Your task to perform on an android device: toggle javascript in the chrome app Image 0: 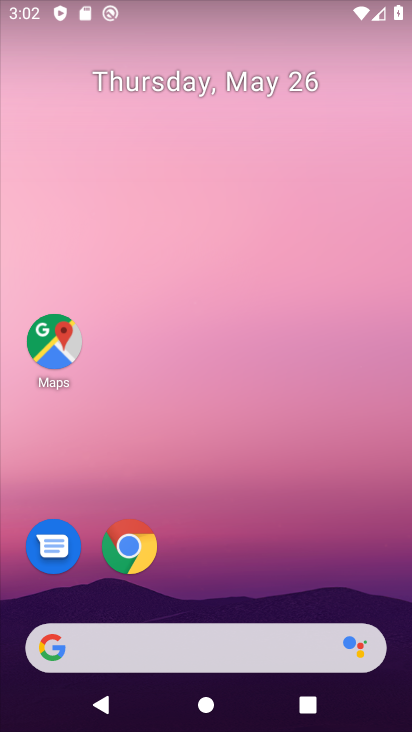
Step 0: drag from (278, 466) to (223, 40)
Your task to perform on an android device: toggle javascript in the chrome app Image 1: 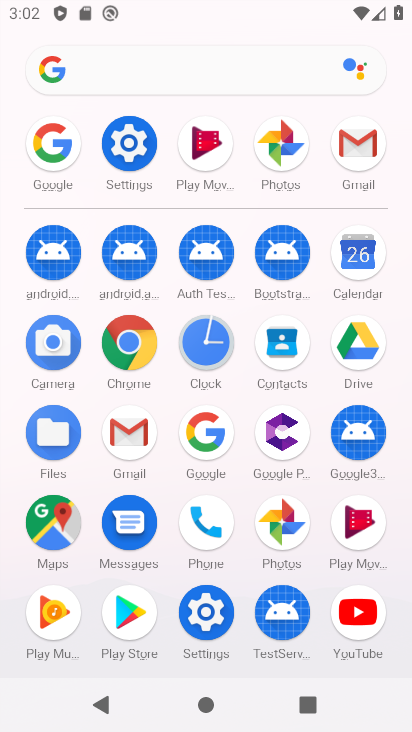
Step 1: click (129, 341)
Your task to perform on an android device: toggle javascript in the chrome app Image 2: 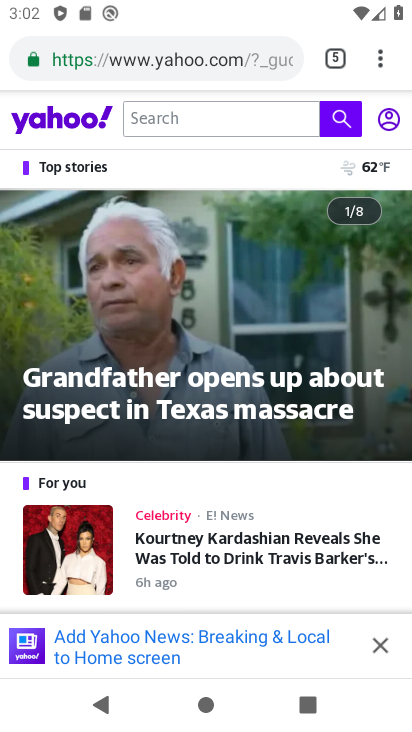
Step 2: click (381, 59)
Your task to perform on an android device: toggle javascript in the chrome app Image 3: 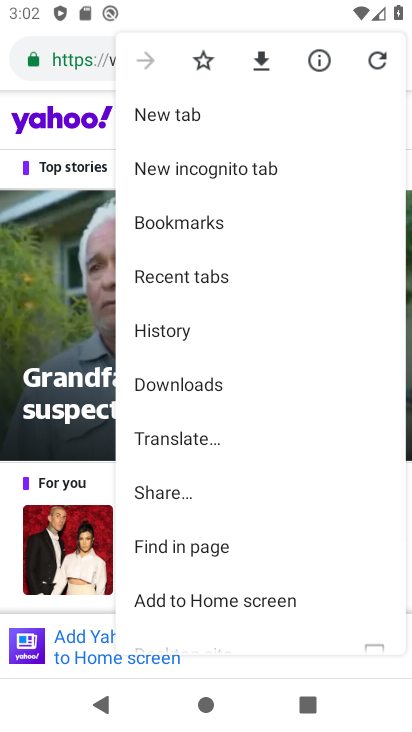
Step 3: drag from (252, 491) to (256, 105)
Your task to perform on an android device: toggle javascript in the chrome app Image 4: 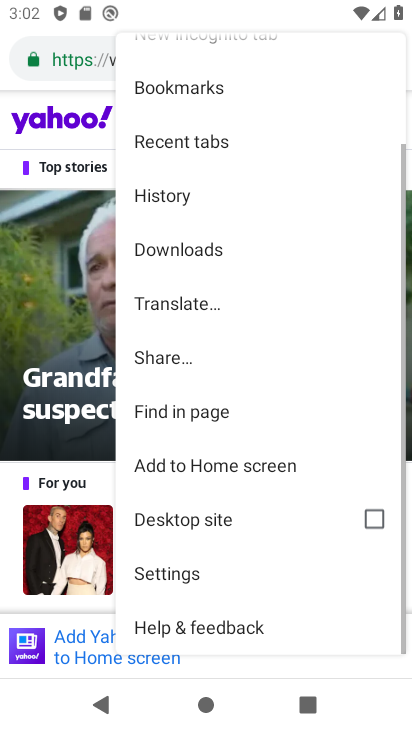
Step 4: click (229, 582)
Your task to perform on an android device: toggle javascript in the chrome app Image 5: 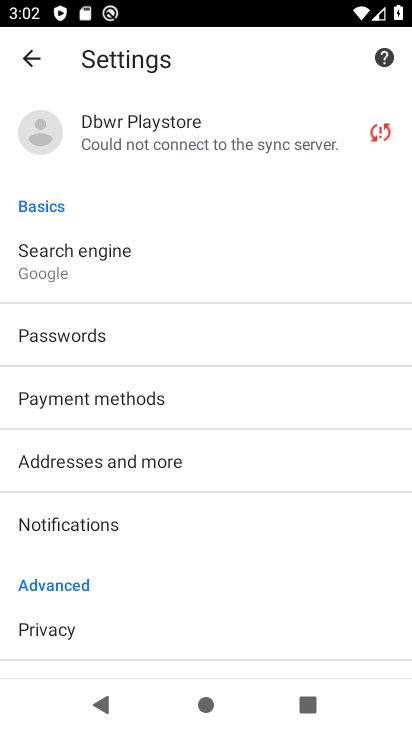
Step 5: drag from (210, 569) to (211, 162)
Your task to perform on an android device: toggle javascript in the chrome app Image 6: 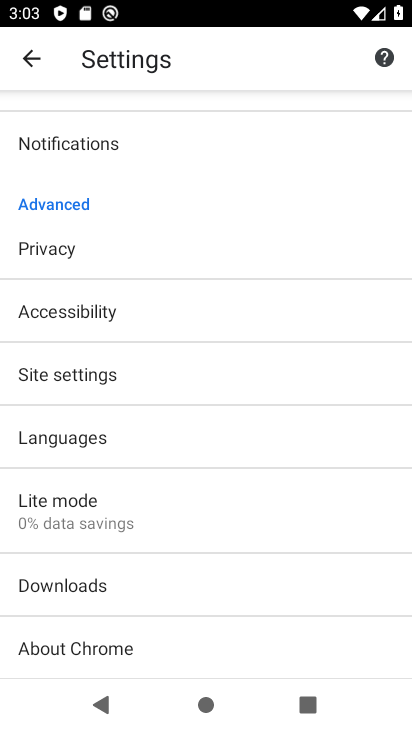
Step 6: click (118, 514)
Your task to perform on an android device: toggle javascript in the chrome app Image 7: 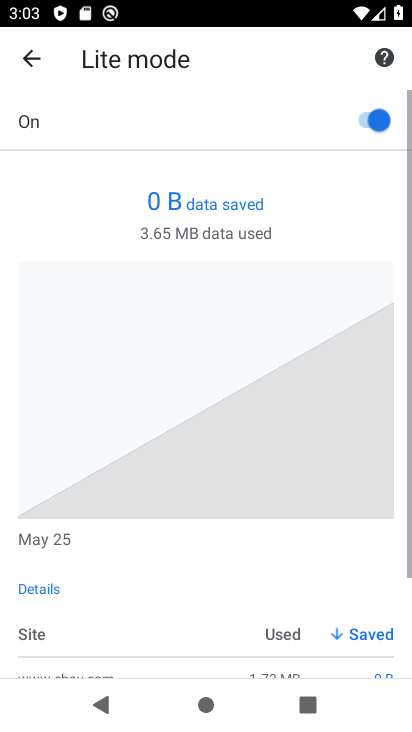
Step 7: press back button
Your task to perform on an android device: toggle javascript in the chrome app Image 8: 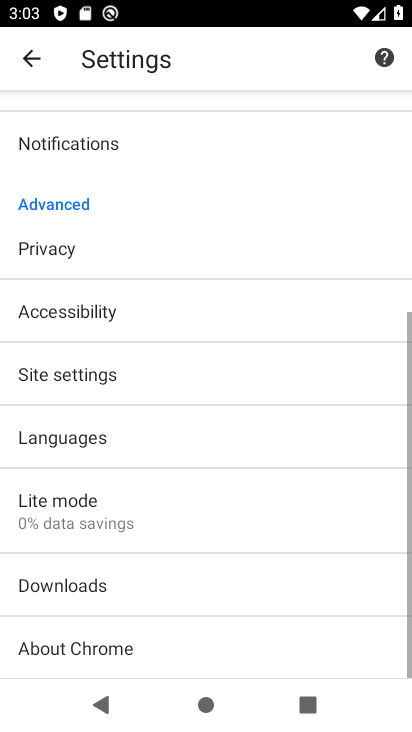
Step 8: click (122, 387)
Your task to perform on an android device: toggle javascript in the chrome app Image 9: 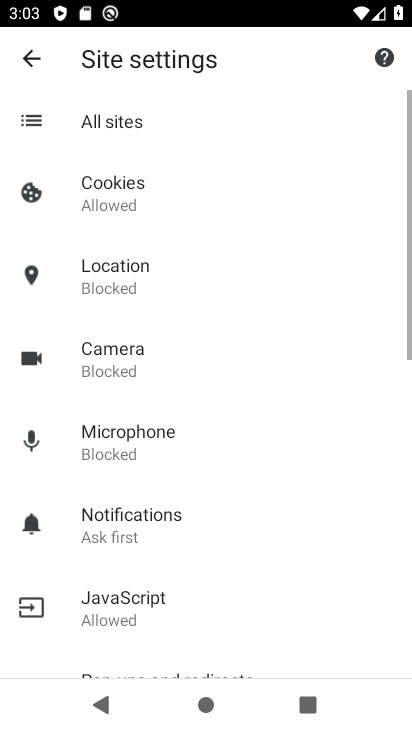
Step 9: click (141, 607)
Your task to perform on an android device: toggle javascript in the chrome app Image 10: 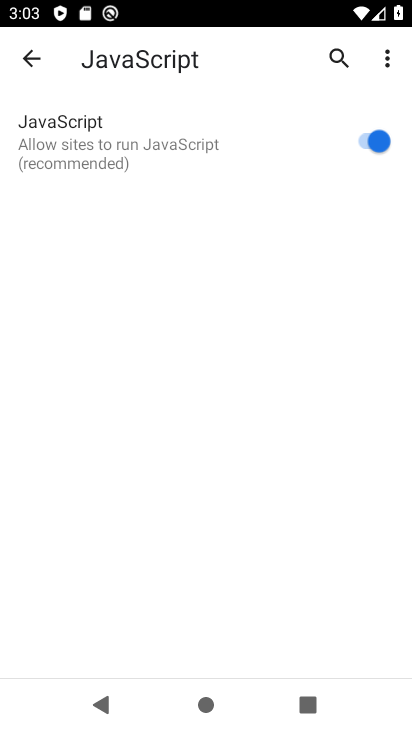
Step 10: click (361, 143)
Your task to perform on an android device: toggle javascript in the chrome app Image 11: 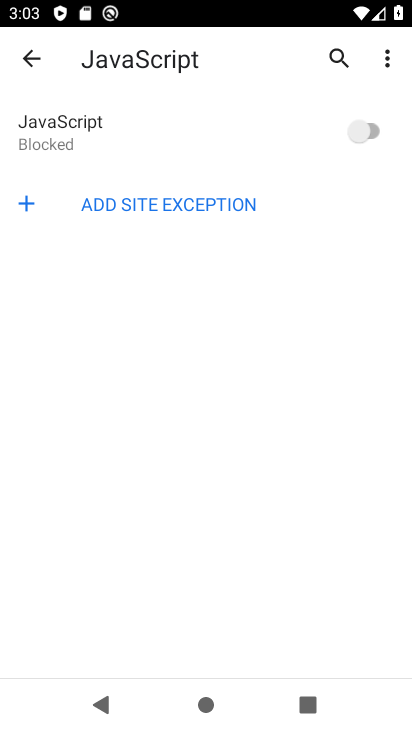
Step 11: task complete